Your task to perform on an android device: turn on translation in the chrome app Image 0: 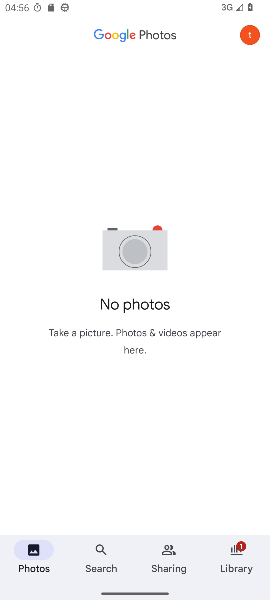
Step 0: press home button
Your task to perform on an android device: turn on translation in the chrome app Image 1: 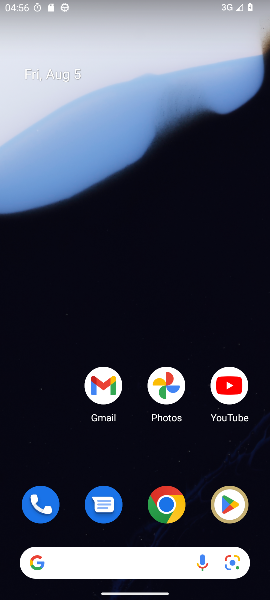
Step 1: click (160, 511)
Your task to perform on an android device: turn on translation in the chrome app Image 2: 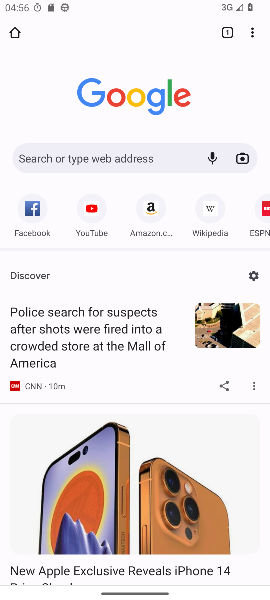
Step 2: click (251, 33)
Your task to perform on an android device: turn on translation in the chrome app Image 3: 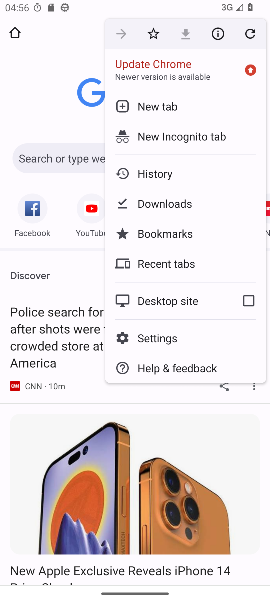
Step 3: click (183, 342)
Your task to perform on an android device: turn on translation in the chrome app Image 4: 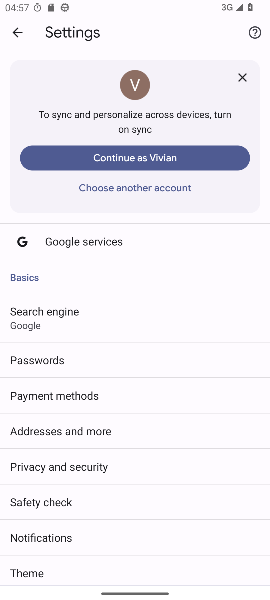
Step 4: drag from (162, 497) to (197, 248)
Your task to perform on an android device: turn on translation in the chrome app Image 5: 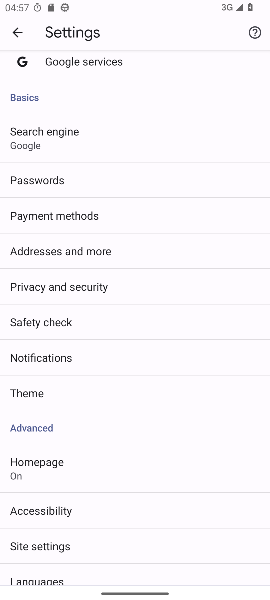
Step 5: drag from (169, 446) to (171, 275)
Your task to perform on an android device: turn on translation in the chrome app Image 6: 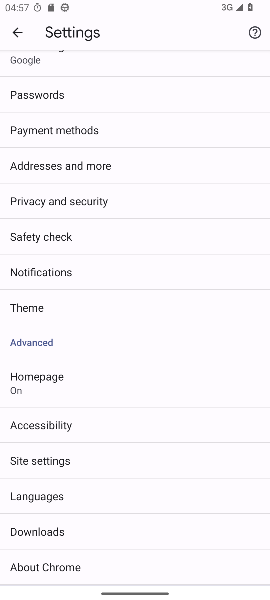
Step 6: click (49, 492)
Your task to perform on an android device: turn on translation in the chrome app Image 7: 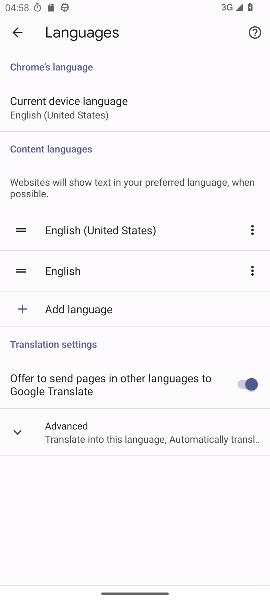
Step 7: task complete